Your task to perform on an android device: turn pop-ups on in chrome Image 0: 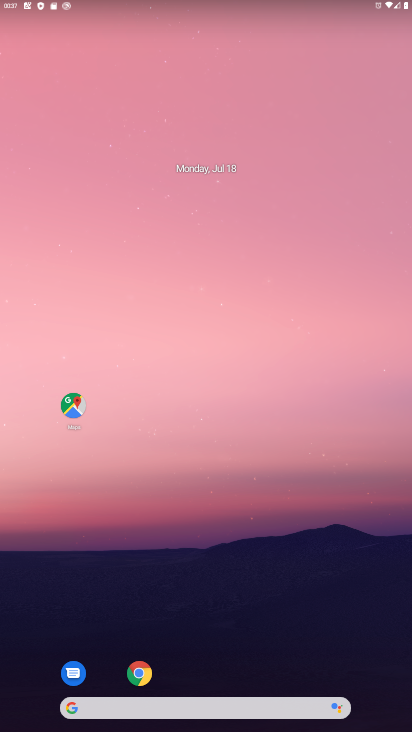
Step 0: click (147, 673)
Your task to perform on an android device: turn pop-ups on in chrome Image 1: 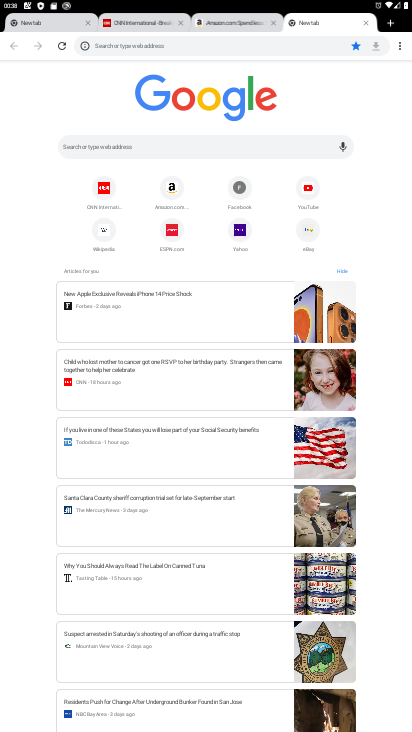
Step 1: click (401, 37)
Your task to perform on an android device: turn pop-ups on in chrome Image 2: 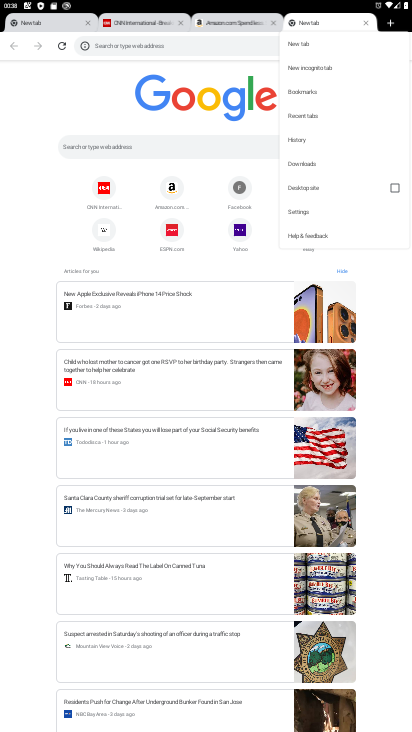
Step 2: click (315, 214)
Your task to perform on an android device: turn pop-ups on in chrome Image 3: 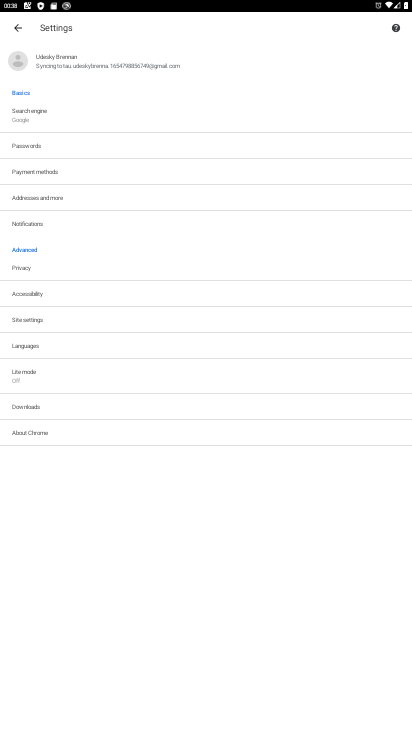
Step 3: click (80, 317)
Your task to perform on an android device: turn pop-ups on in chrome Image 4: 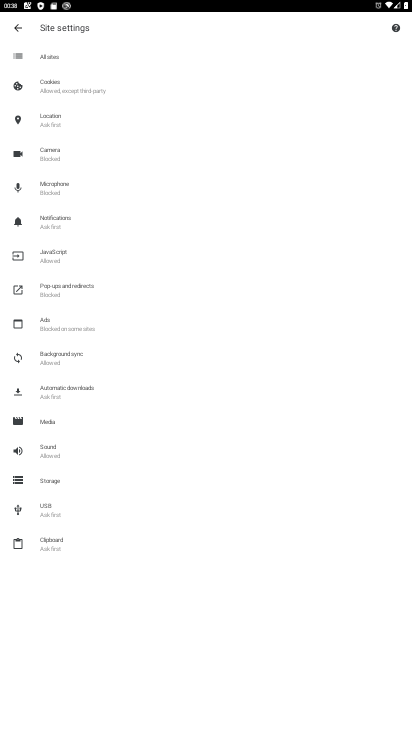
Step 4: task complete